Your task to perform on an android device: Set the phone to "Do not disturb". Image 0: 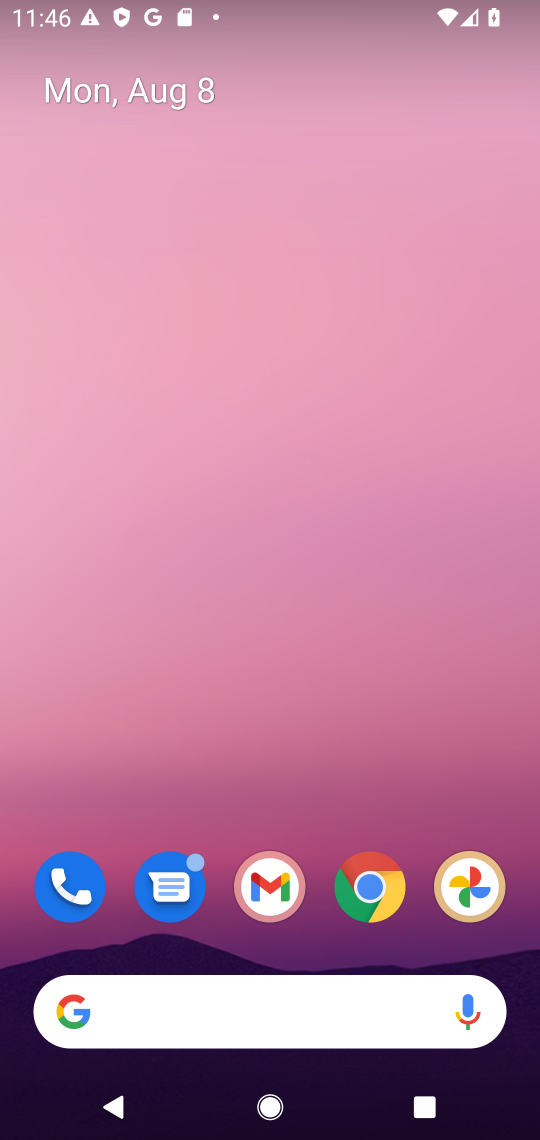
Step 0: drag from (292, 787) to (285, 176)
Your task to perform on an android device: Set the phone to "Do not disturb". Image 1: 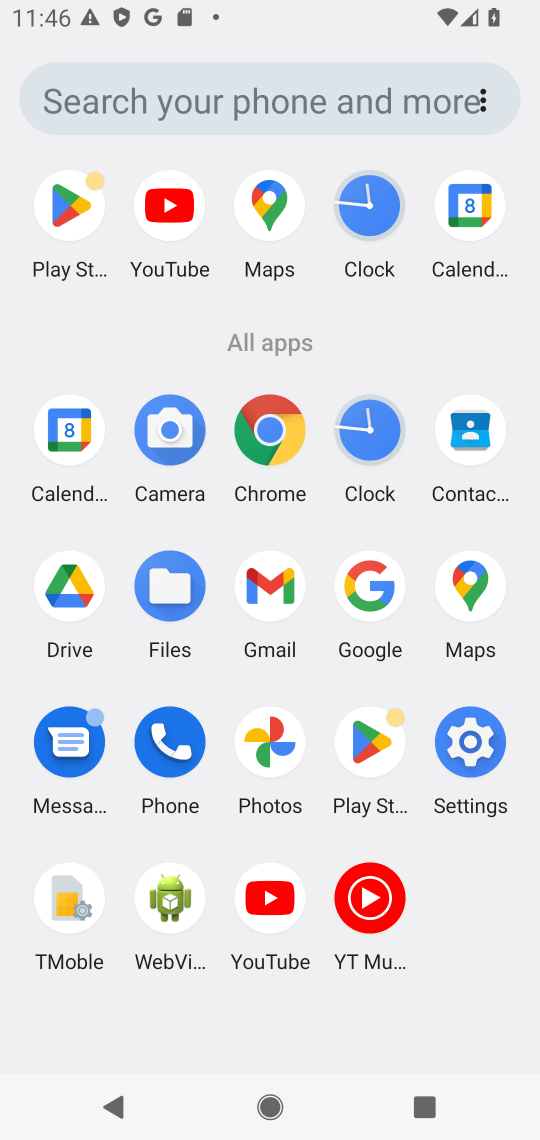
Step 1: click (471, 745)
Your task to perform on an android device: Set the phone to "Do not disturb". Image 2: 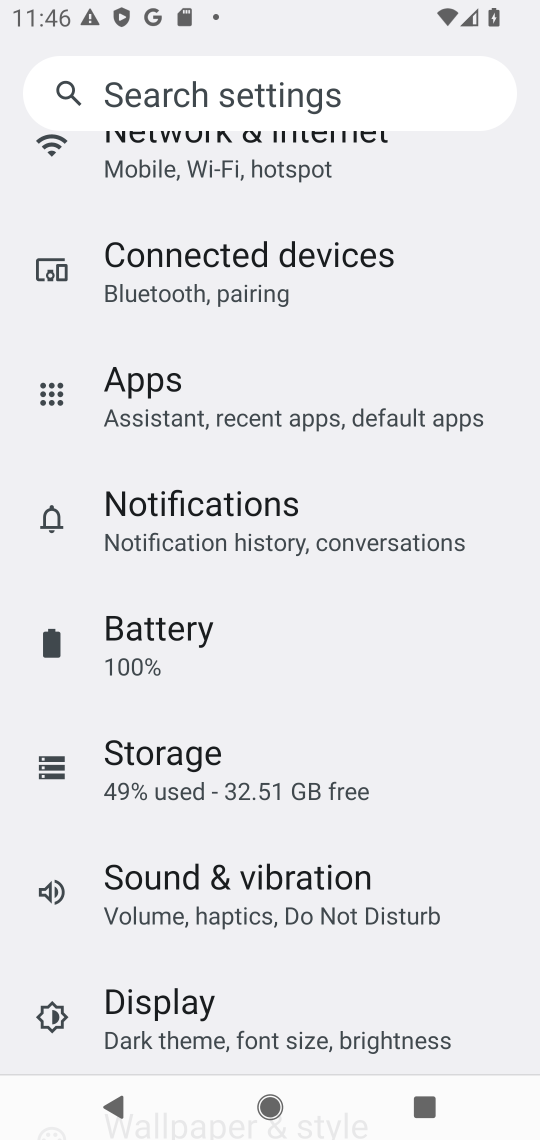
Step 2: click (222, 884)
Your task to perform on an android device: Set the phone to "Do not disturb". Image 3: 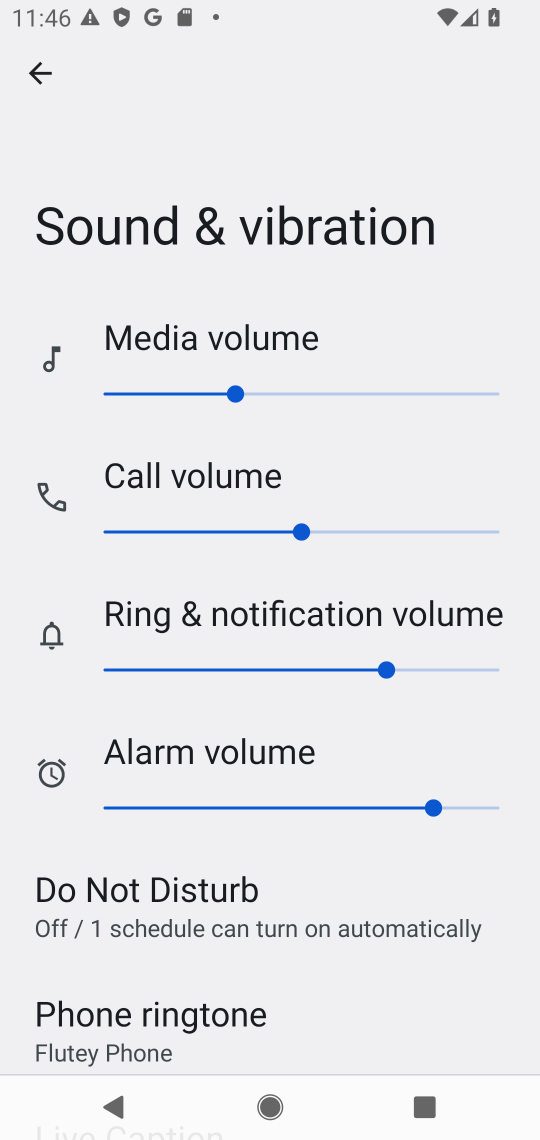
Step 3: click (206, 888)
Your task to perform on an android device: Set the phone to "Do not disturb". Image 4: 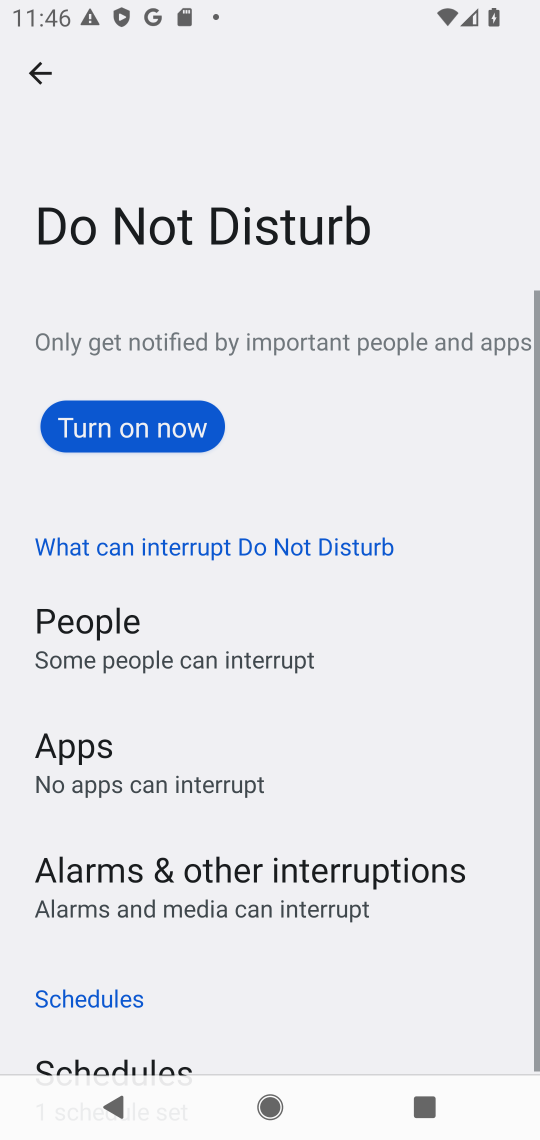
Step 4: click (134, 428)
Your task to perform on an android device: Set the phone to "Do not disturb". Image 5: 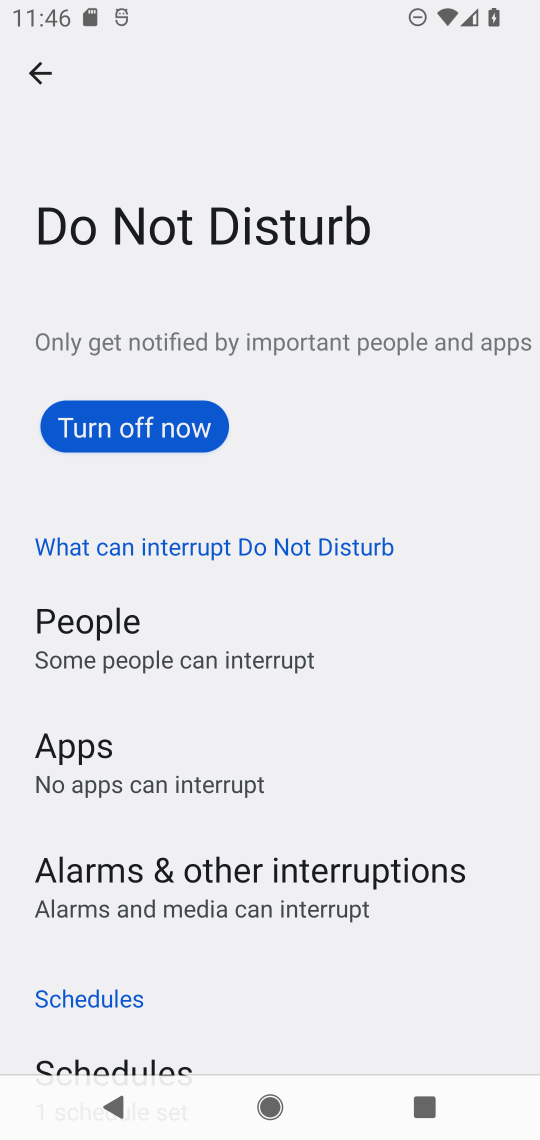
Step 5: task complete